Your task to perform on an android device: What is the news today? Image 0: 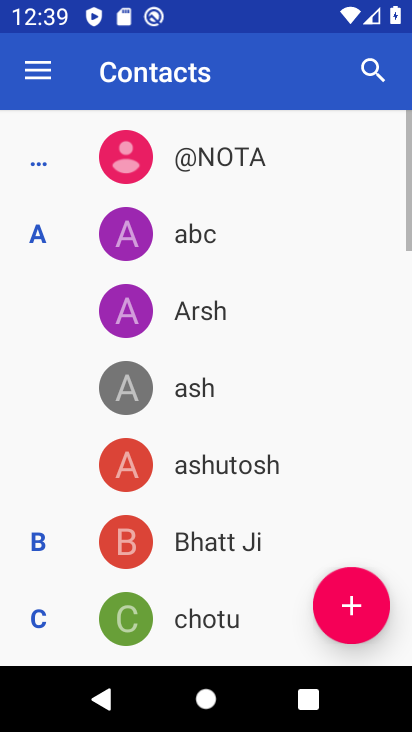
Step 0: press back button
Your task to perform on an android device: What is the news today? Image 1: 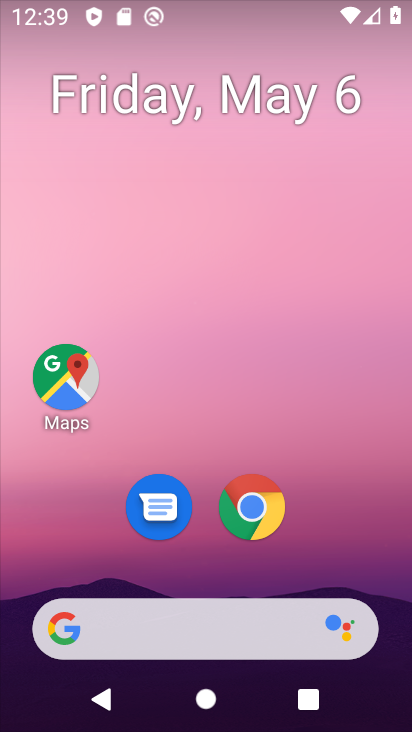
Step 1: task complete